Your task to perform on an android device: What's the weather going to be tomorrow? Image 0: 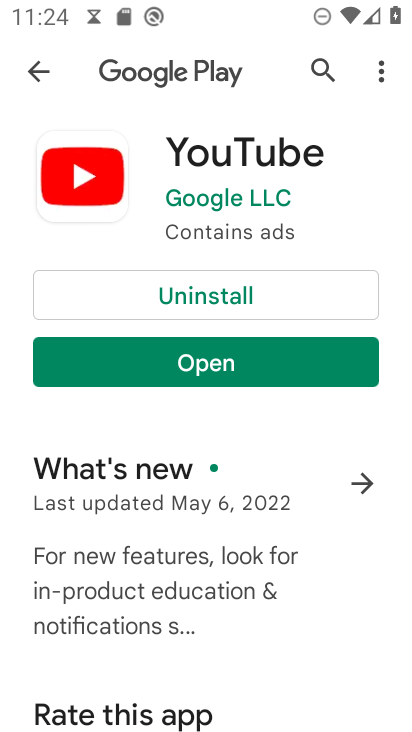
Step 0: press home button
Your task to perform on an android device: What's the weather going to be tomorrow? Image 1: 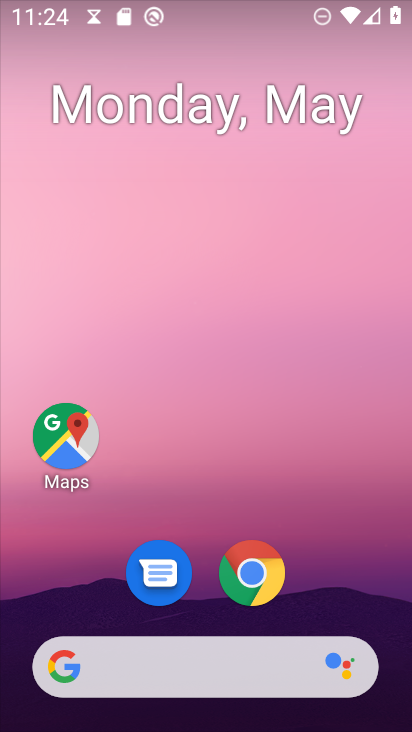
Step 1: drag from (350, 541) to (212, 74)
Your task to perform on an android device: What's the weather going to be tomorrow? Image 2: 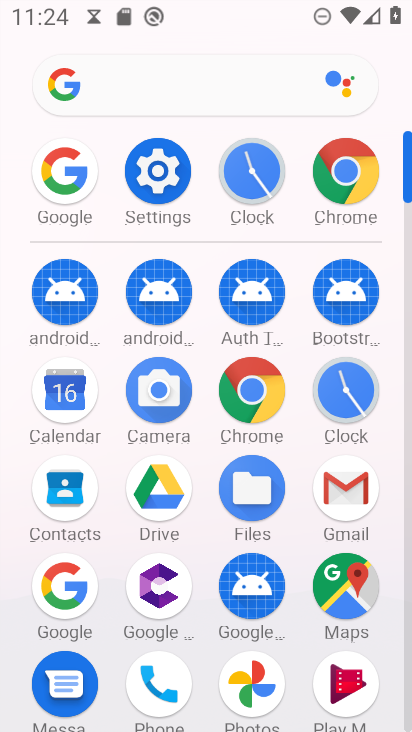
Step 2: click (67, 179)
Your task to perform on an android device: What's the weather going to be tomorrow? Image 3: 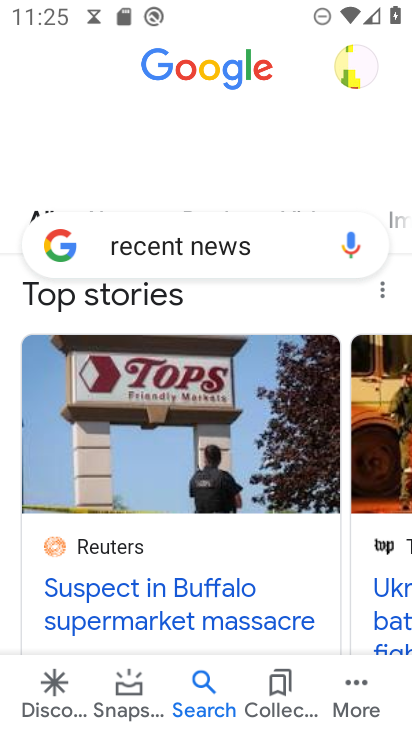
Step 3: click (259, 250)
Your task to perform on an android device: What's the weather going to be tomorrow? Image 4: 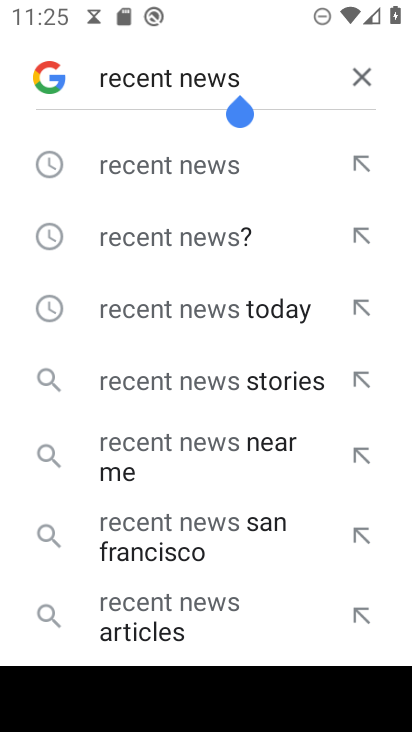
Step 4: click (355, 77)
Your task to perform on an android device: What's the weather going to be tomorrow? Image 5: 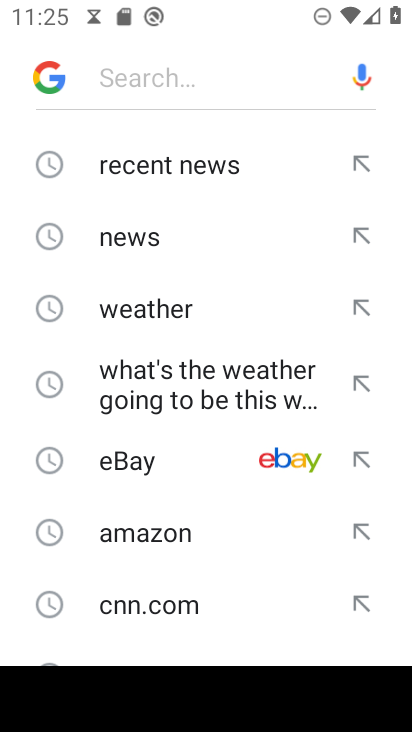
Step 5: click (170, 308)
Your task to perform on an android device: What's the weather going to be tomorrow? Image 6: 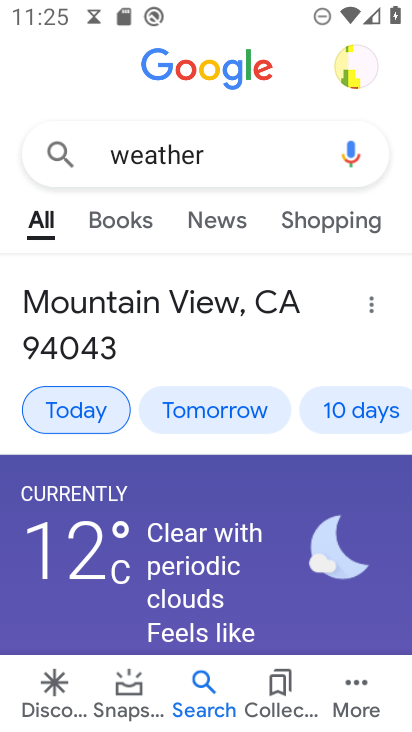
Step 6: click (216, 405)
Your task to perform on an android device: What's the weather going to be tomorrow? Image 7: 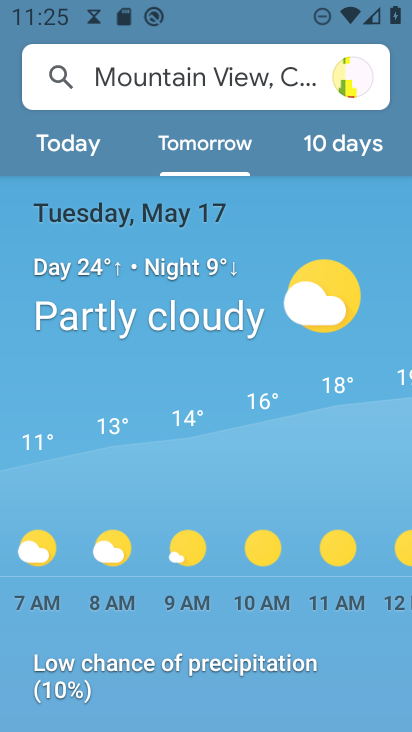
Step 7: task complete